Your task to perform on an android device: Go to battery settings Image 0: 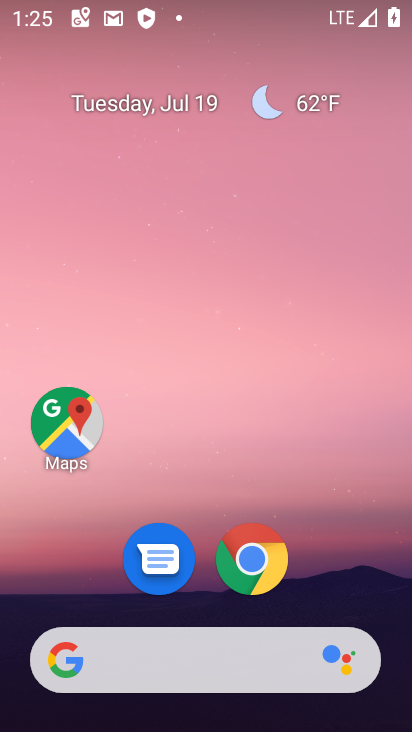
Step 0: drag from (273, 428) to (281, 155)
Your task to perform on an android device: Go to battery settings Image 1: 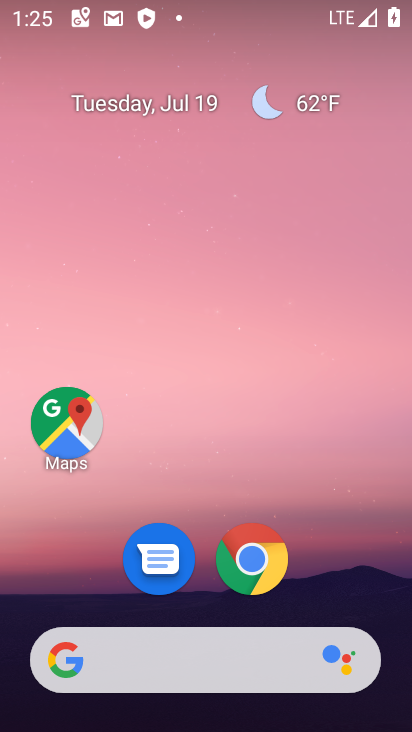
Step 1: drag from (193, 643) to (218, 231)
Your task to perform on an android device: Go to battery settings Image 2: 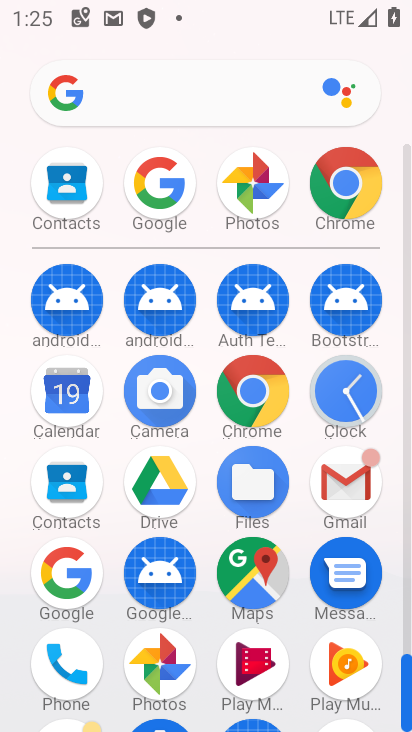
Step 2: drag from (247, 561) to (284, 171)
Your task to perform on an android device: Go to battery settings Image 3: 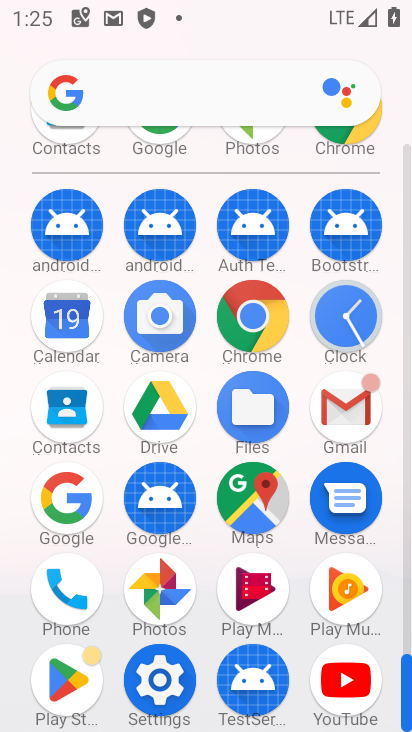
Step 3: click (143, 708)
Your task to perform on an android device: Go to battery settings Image 4: 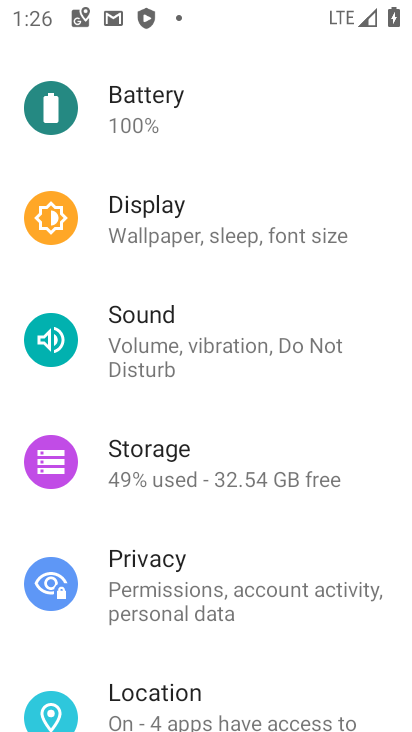
Step 4: click (181, 111)
Your task to perform on an android device: Go to battery settings Image 5: 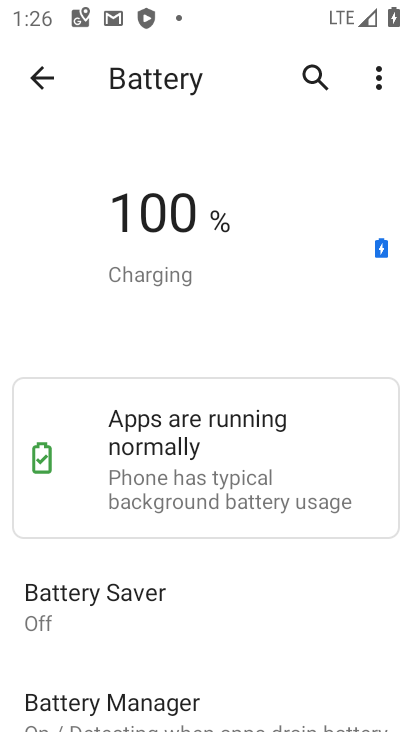
Step 5: task complete